Your task to perform on an android device: open app "eBay: The shopping marketplace" Image 0: 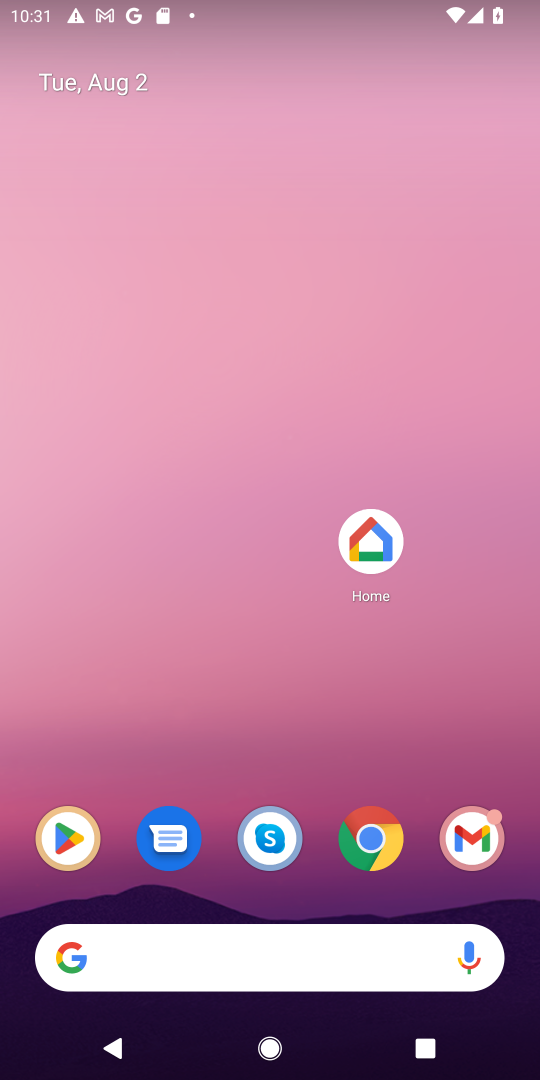
Step 0: press home button
Your task to perform on an android device: open app "eBay: The shopping marketplace" Image 1: 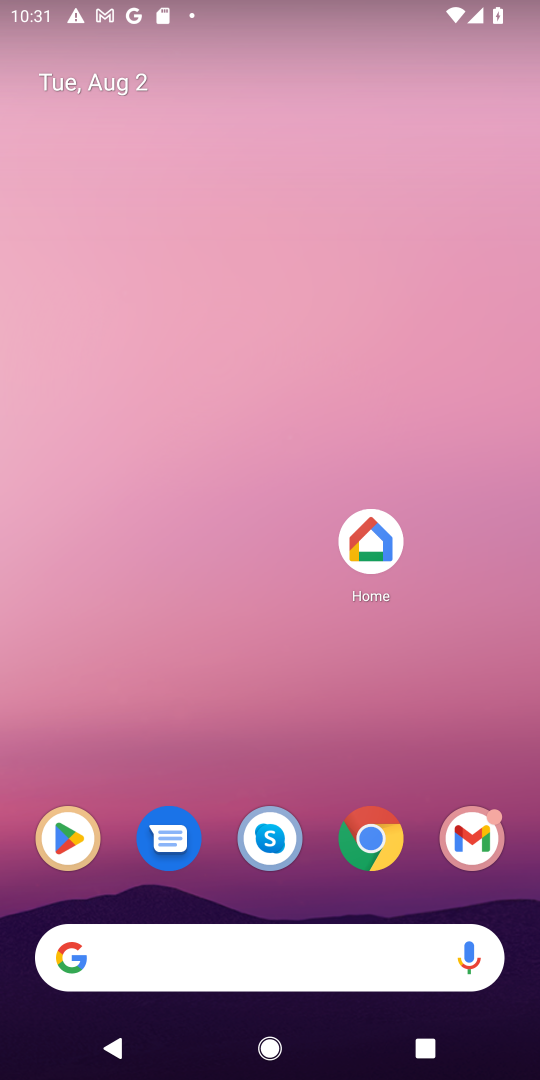
Step 1: drag from (206, 763) to (259, 79)
Your task to perform on an android device: open app "eBay: The shopping marketplace" Image 2: 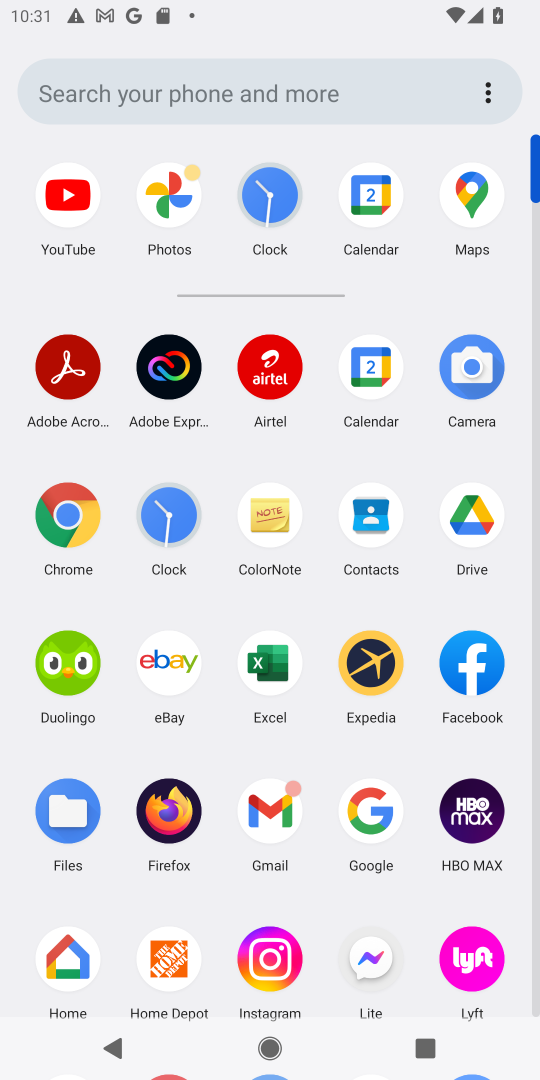
Step 2: drag from (203, 852) to (216, 578)
Your task to perform on an android device: open app "eBay: The shopping marketplace" Image 3: 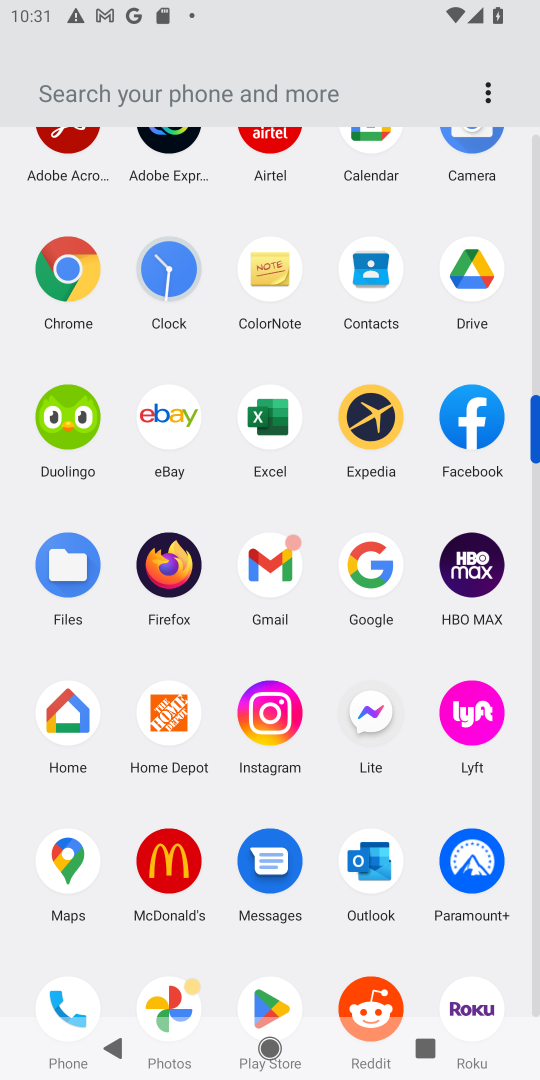
Step 3: drag from (212, 945) to (212, 627)
Your task to perform on an android device: open app "eBay: The shopping marketplace" Image 4: 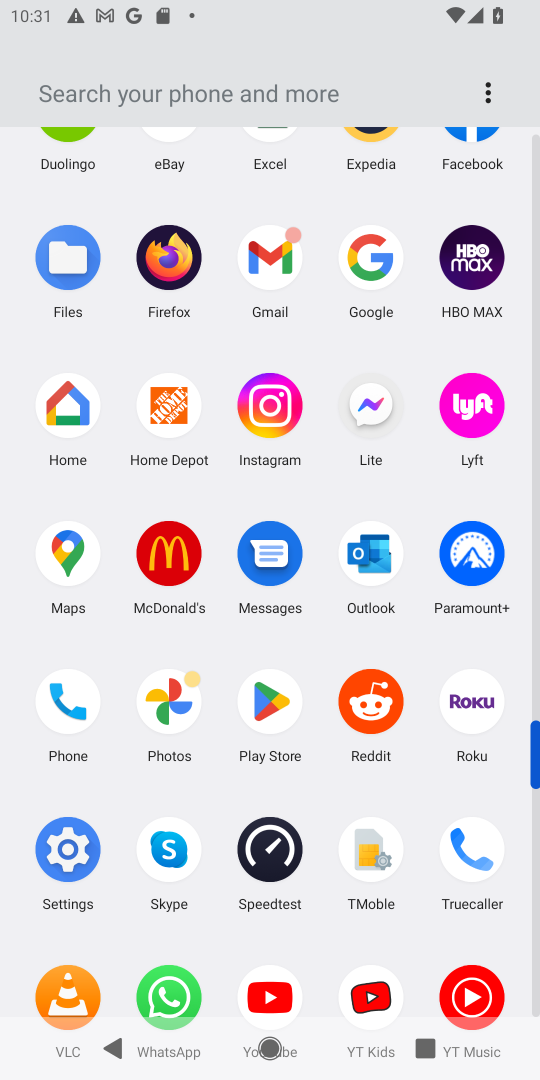
Step 4: click (275, 703)
Your task to perform on an android device: open app "eBay: The shopping marketplace" Image 5: 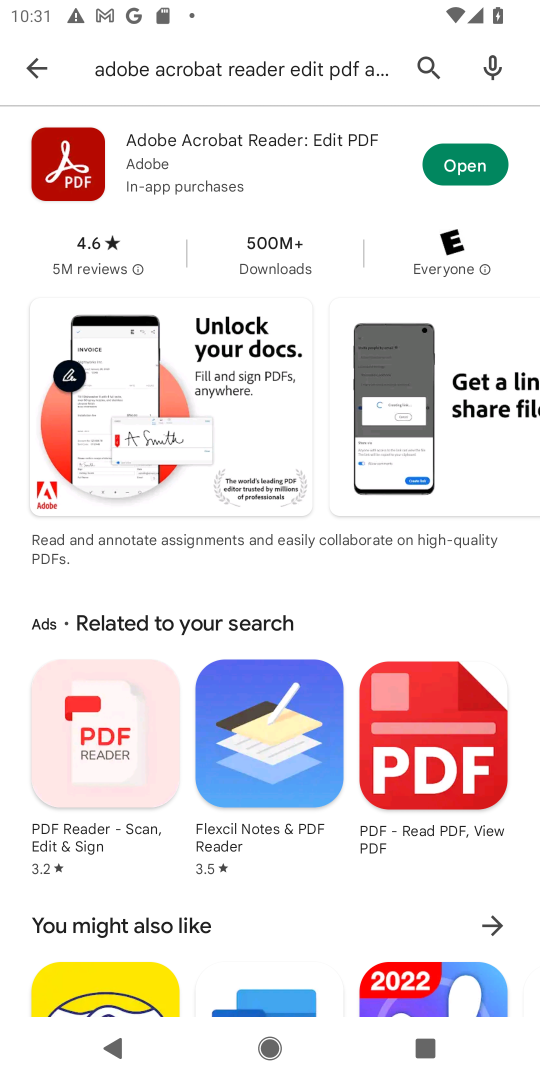
Step 5: click (424, 59)
Your task to perform on an android device: open app "eBay: The shopping marketplace" Image 6: 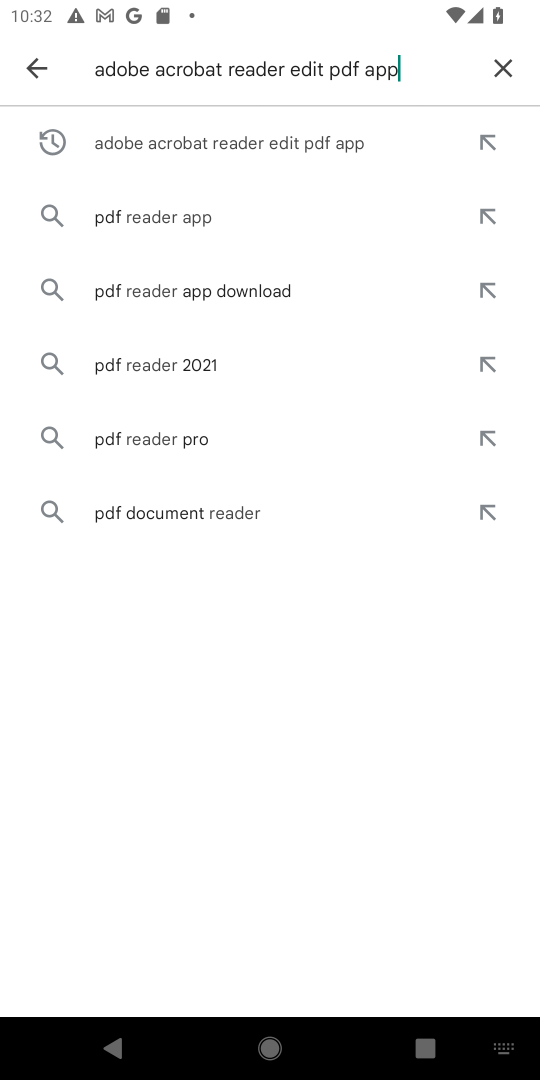
Step 6: click (495, 68)
Your task to perform on an android device: open app "eBay: The shopping marketplace" Image 7: 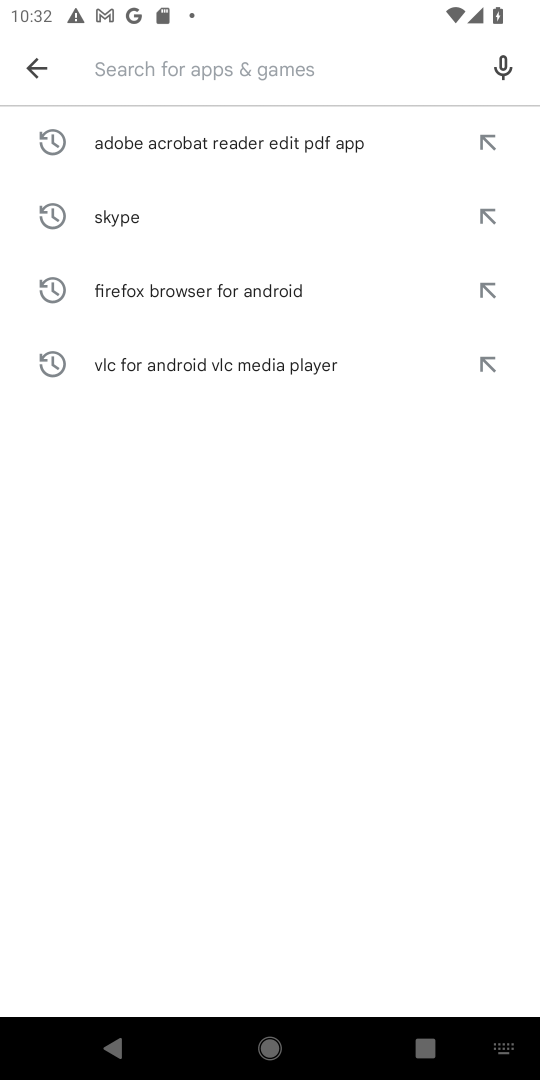
Step 7: click (400, 83)
Your task to perform on an android device: open app "eBay: The shopping marketplace" Image 8: 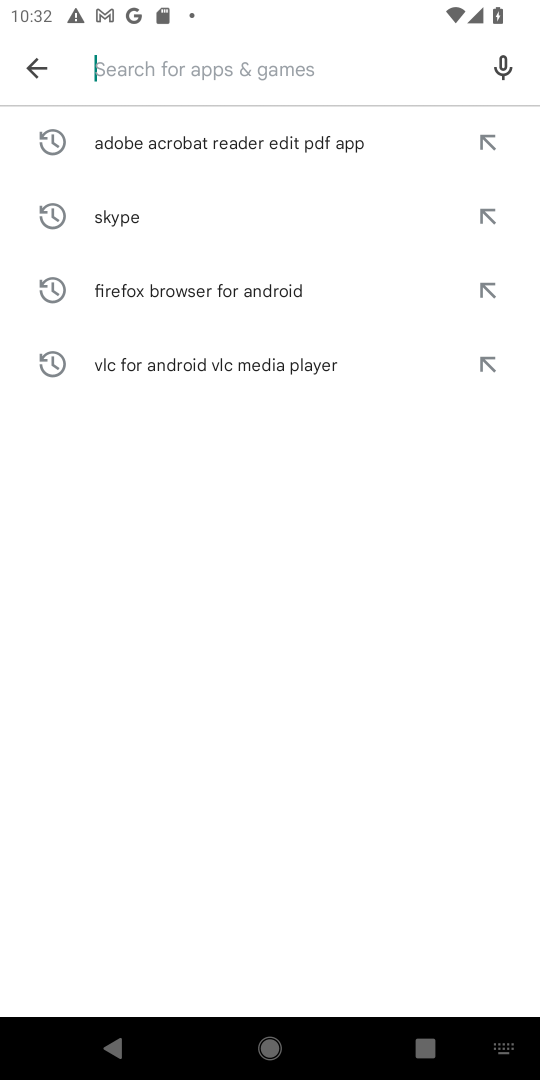
Step 8: type "ebay the shopping marketplace "
Your task to perform on an android device: open app "eBay: The shopping marketplace" Image 9: 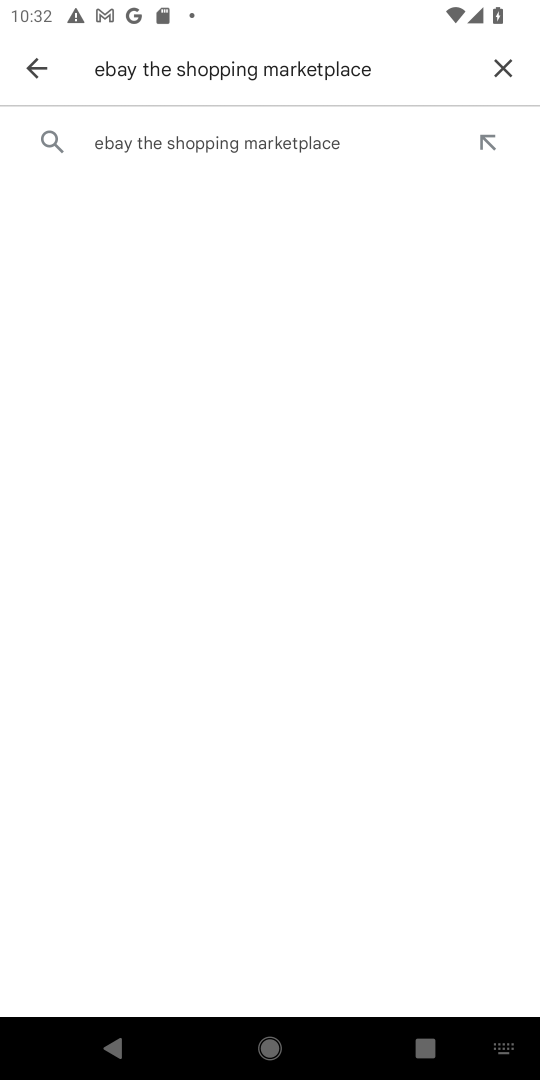
Step 9: click (307, 149)
Your task to perform on an android device: open app "eBay: The shopping marketplace" Image 10: 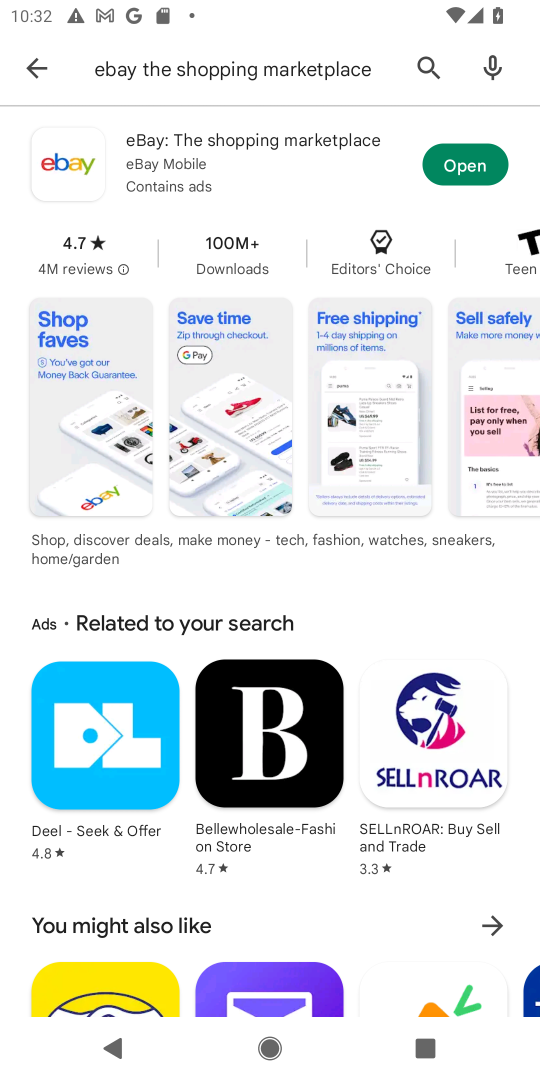
Step 10: click (470, 163)
Your task to perform on an android device: open app "eBay: The shopping marketplace" Image 11: 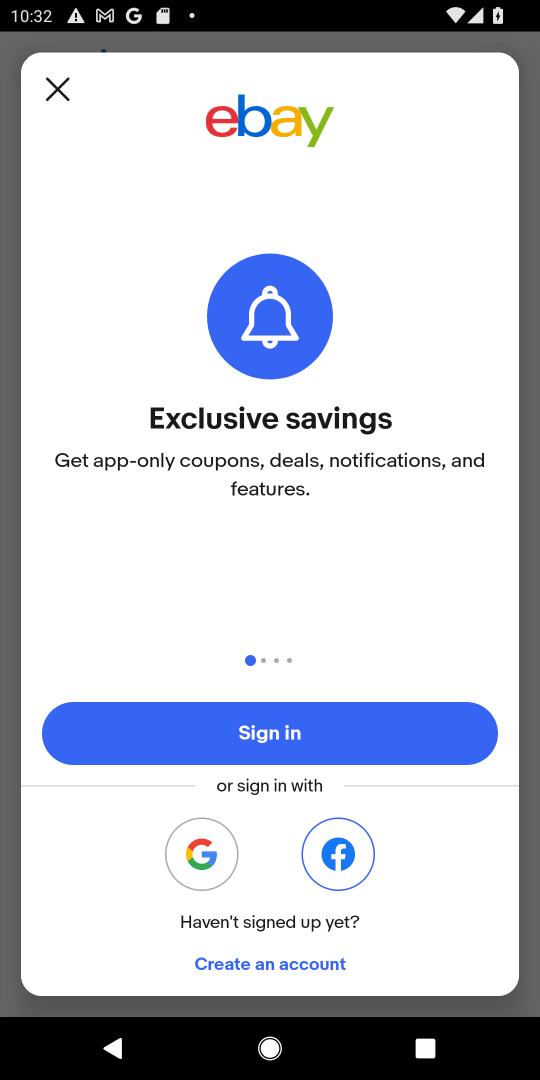
Step 11: task complete